Your task to perform on an android device: choose inbox layout in the gmail app Image 0: 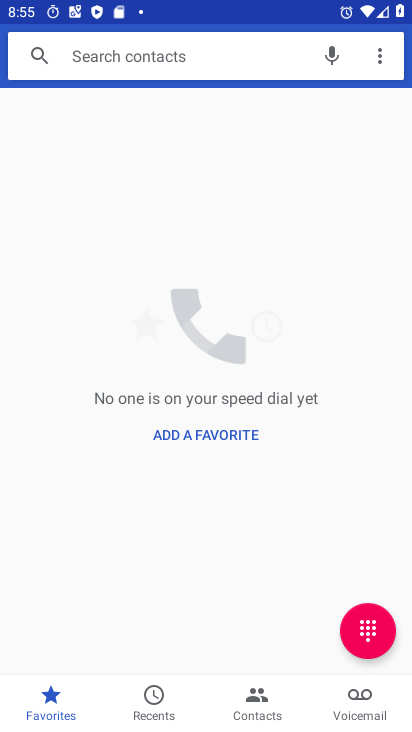
Step 0: press home button
Your task to perform on an android device: choose inbox layout in the gmail app Image 1: 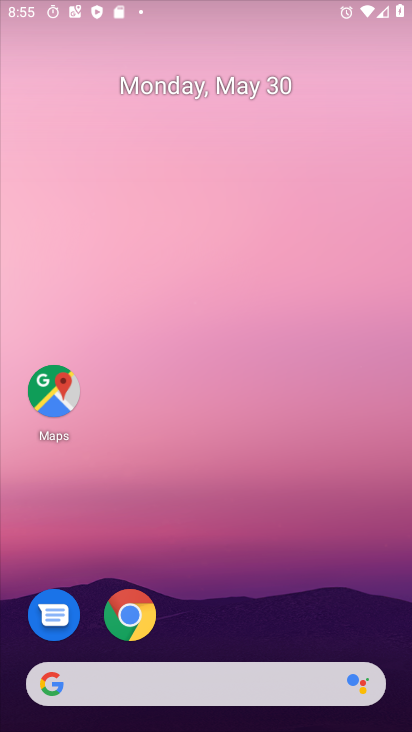
Step 1: drag from (325, 519) to (298, 64)
Your task to perform on an android device: choose inbox layout in the gmail app Image 2: 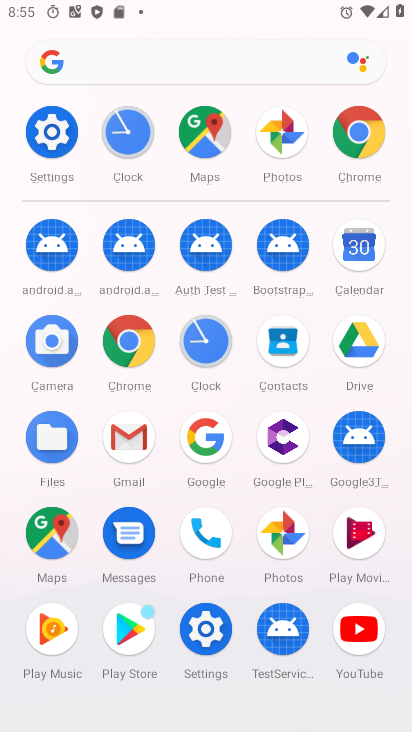
Step 2: click (126, 434)
Your task to perform on an android device: choose inbox layout in the gmail app Image 3: 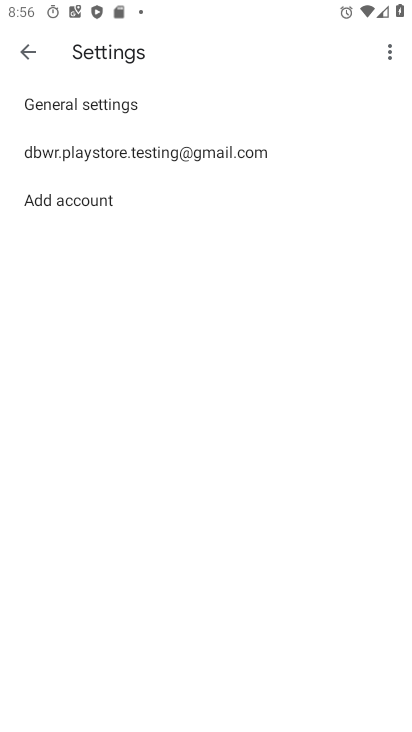
Step 3: click (25, 56)
Your task to perform on an android device: choose inbox layout in the gmail app Image 4: 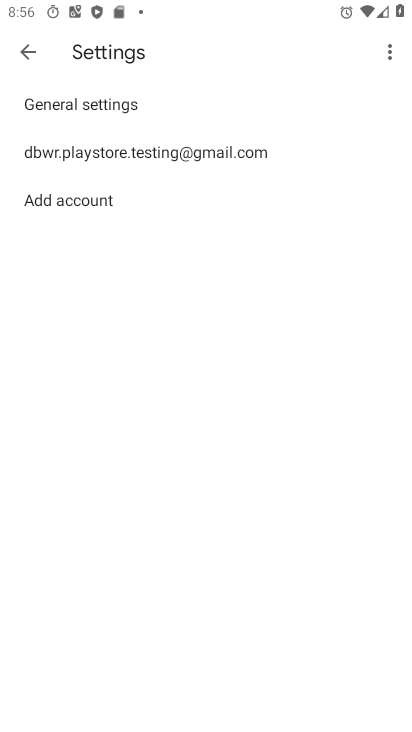
Step 4: click (25, 57)
Your task to perform on an android device: choose inbox layout in the gmail app Image 5: 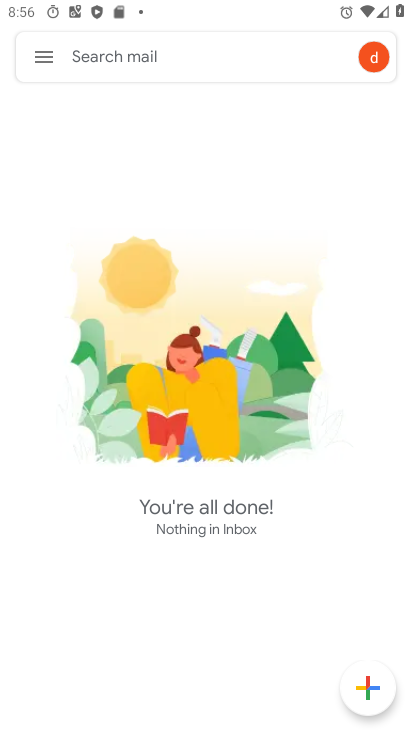
Step 5: click (48, 61)
Your task to perform on an android device: choose inbox layout in the gmail app Image 6: 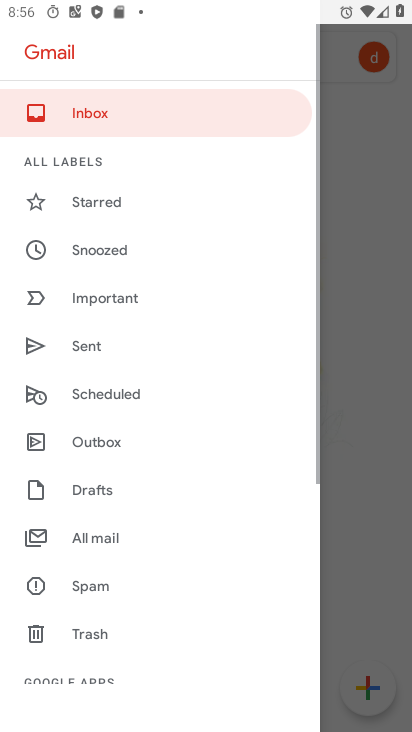
Step 6: drag from (162, 641) to (197, 164)
Your task to perform on an android device: choose inbox layout in the gmail app Image 7: 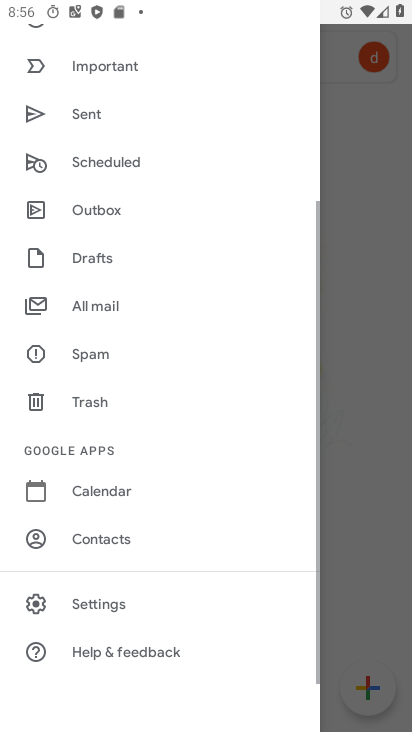
Step 7: click (115, 605)
Your task to perform on an android device: choose inbox layout in the gmail app Image 8: 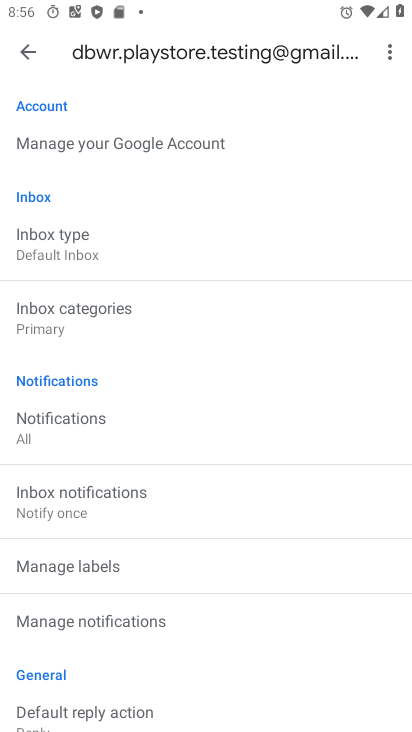
Step 8: drag from (262, 227) to (277, 606)
Your task to perform on an android device: choose inbox layout in the gmail app Image 9: 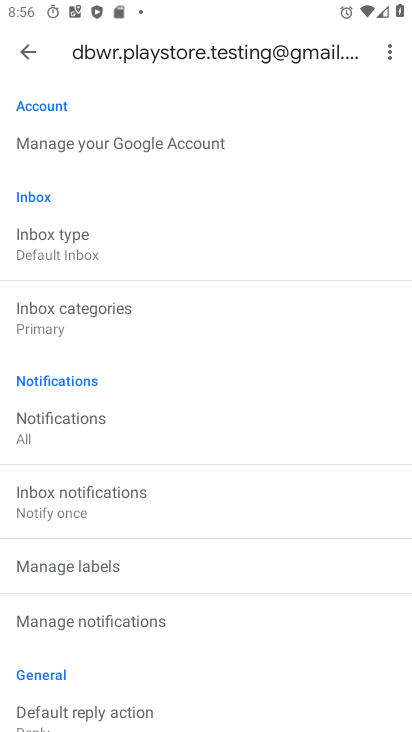
Step 9: drag from (282, 536) to (264, 176)
Your task to perform on an android device: choose inbox layout in the gmail app Image 10: 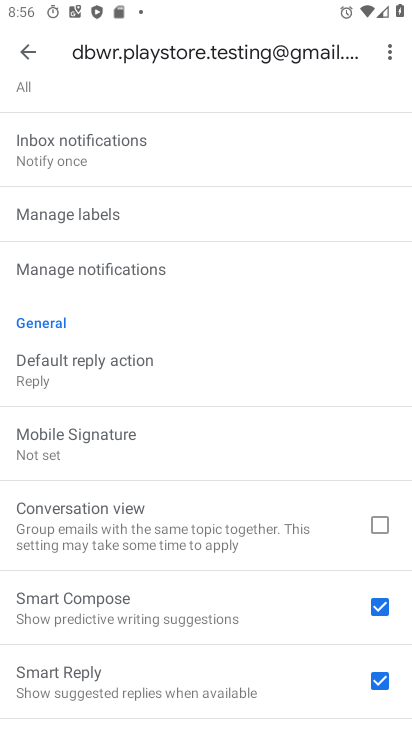
Step 10: drag from (222, 173) to (264, 622)
Your task to perform on an android device: choose inbox layout in the gmail app Image 11: 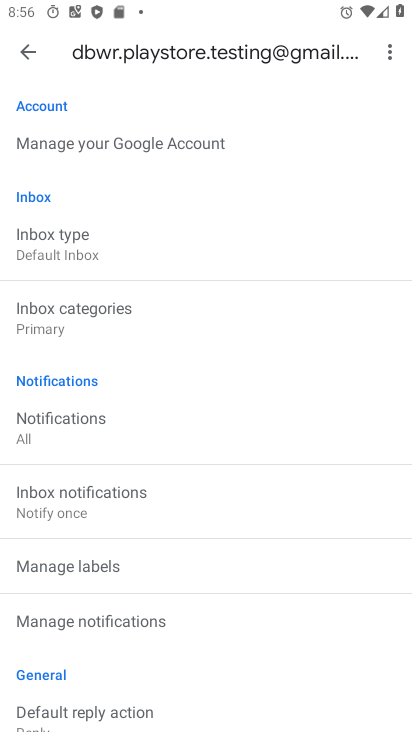
Step 11: click (37, 258)
Your task to perform on an android device: choose inbox layout in the gmail app Image 12: 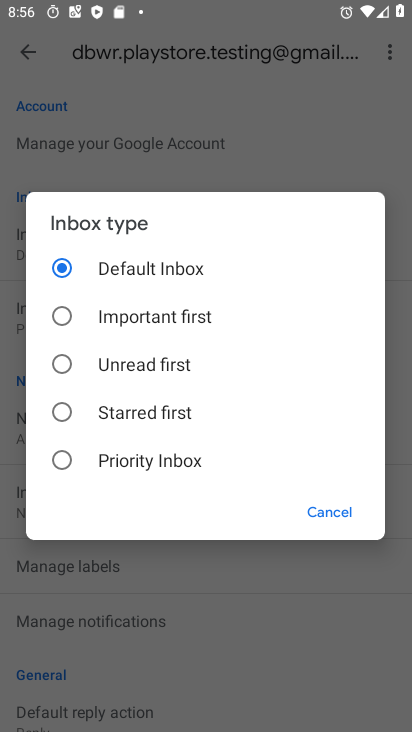
Step 12: click (103, 457)
Your task to perform on an android device: choose inbox layout in the gmail app Image 13: 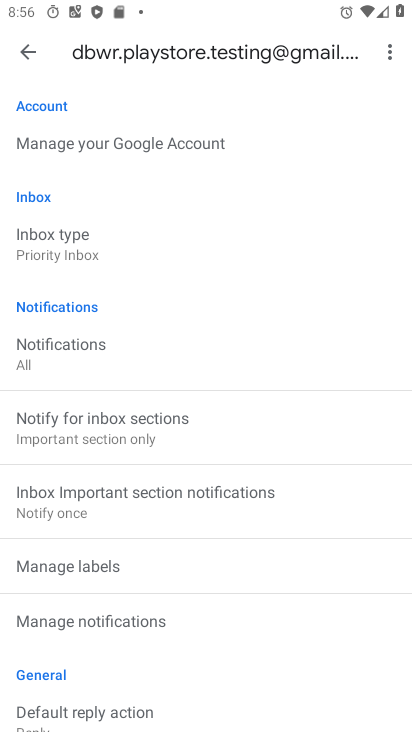
Step 13: task complete